Your task to perform on an android device: Go to accessibility settings Image 0: 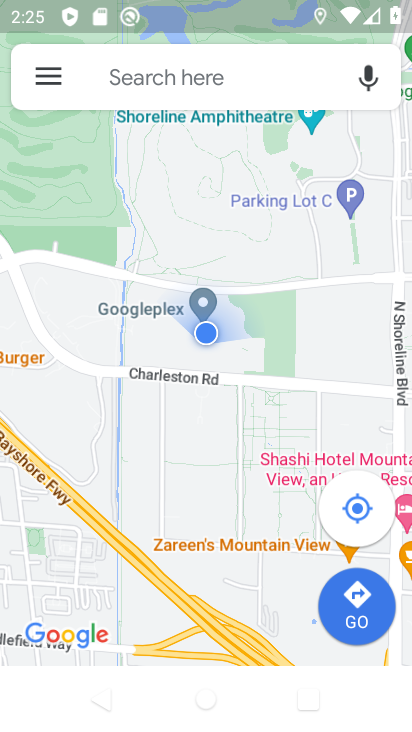
Step 0: task complete